Your task to perform on an android device: Go to Google Image 0: 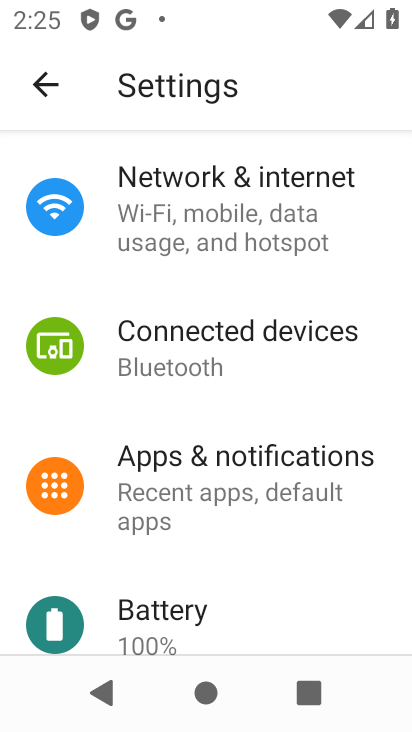
Step 0: press home button
Your task to perform on an android device: Go to Google Image 1: 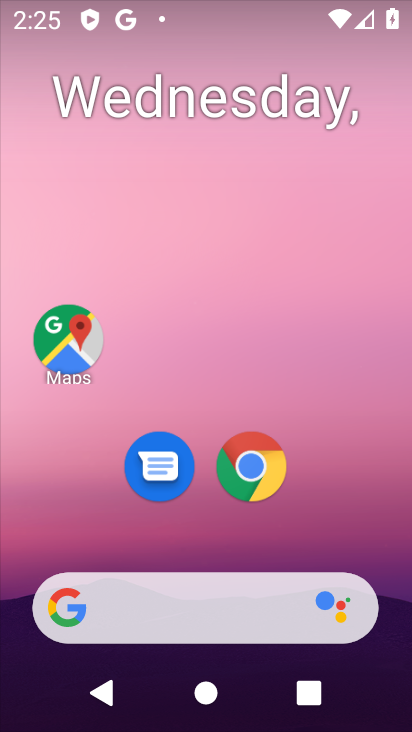
Step 1: drag from (365, 520) to (318, 97)
Your task to perform on an android device: Go to Google Image 2: 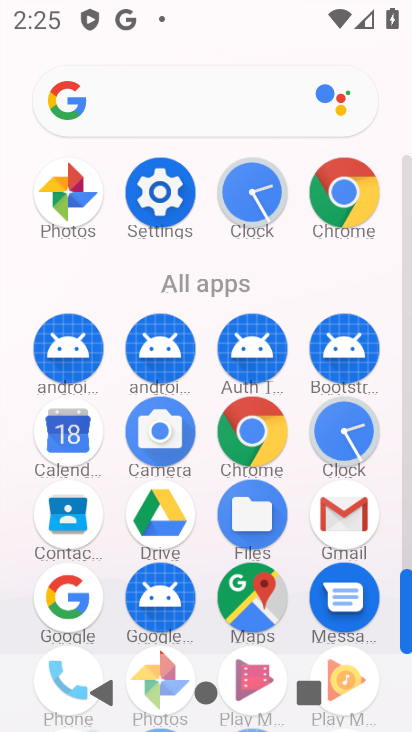
Step 2: drag from (393, 527) to (374, 322)
Your task to perform on an android device: Go to Google Image 3: 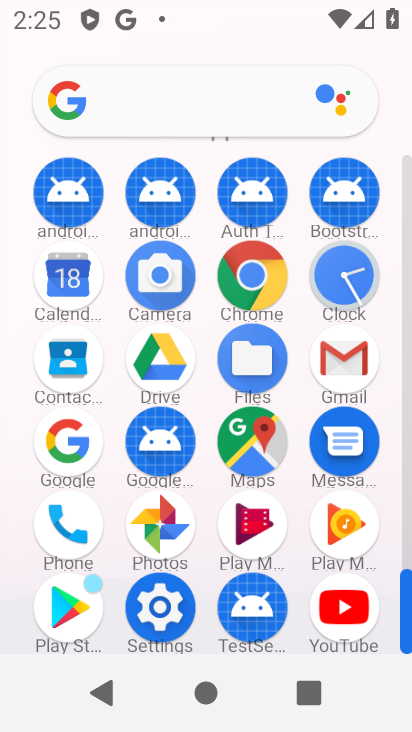
Step 3: click (80, 441)
Your task to perform on an android device: Go to Google Image 4: 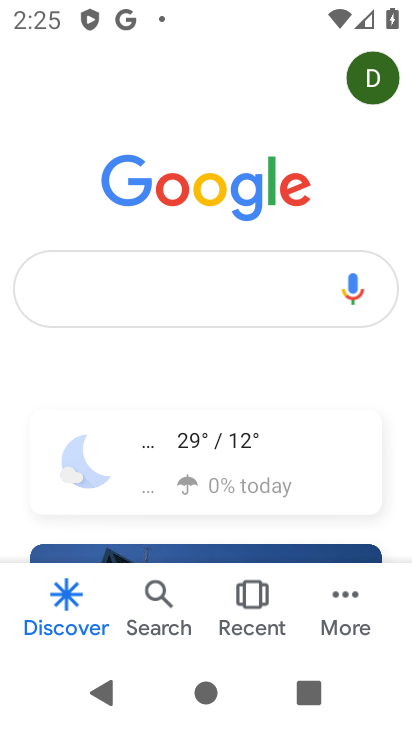
Step 4: task complete